Your task to perform on an android device: Is it going to rain this weekend? Image 0: 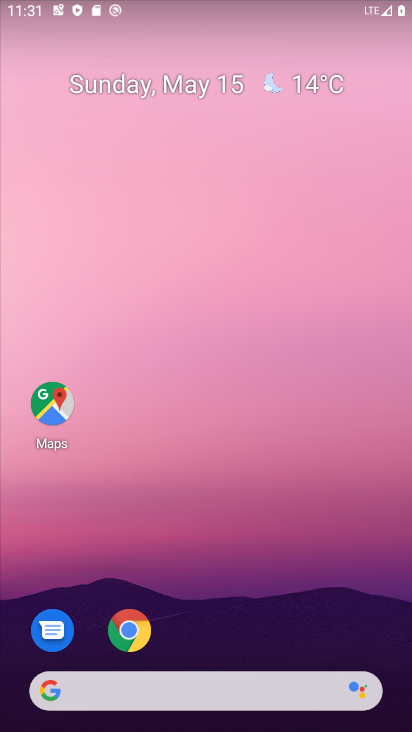
Step 0: click (196, 683)
Your task to perform on an android device: Is it going to rain this weekend? Image 1: 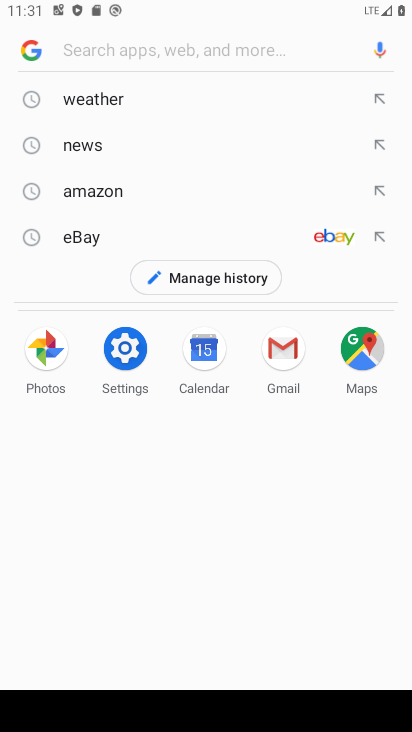
Step 1: click (183, 120)
Your task to perform on an android device: Is it going to rain this weekend? Image 2: 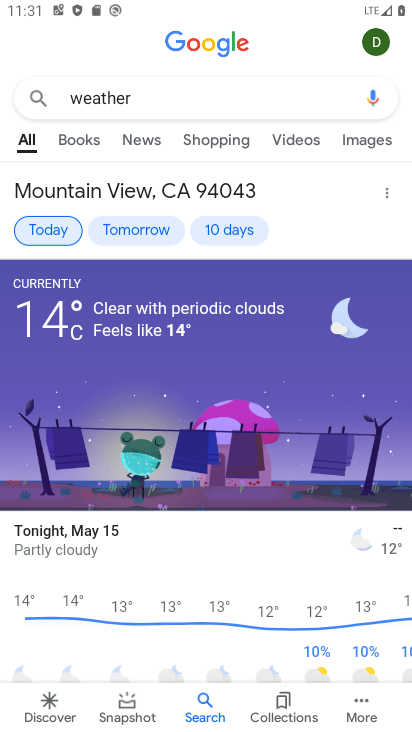
Step 2: task complete